Your task to perform on an android device: Go to Yahoo.com Image 0: 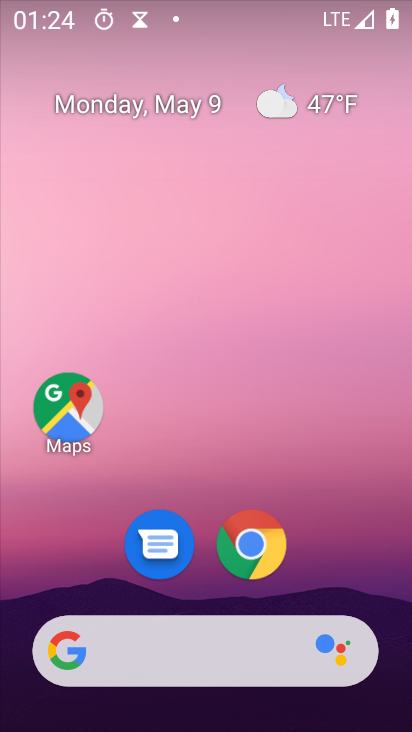
Step 0: drag from (381, 542) to (349, 2)
Your task to perform on an android device: Go to Yahoo.com Image 1: 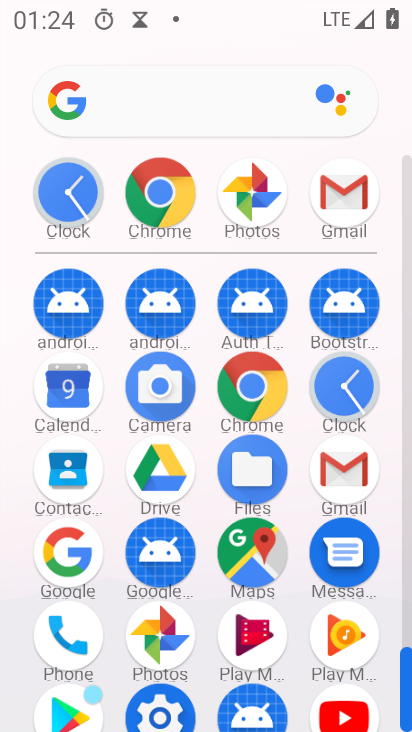
Step 1: click (168, 711)
Your task to perform on an android device: Go to Yahoo.com Image 2: 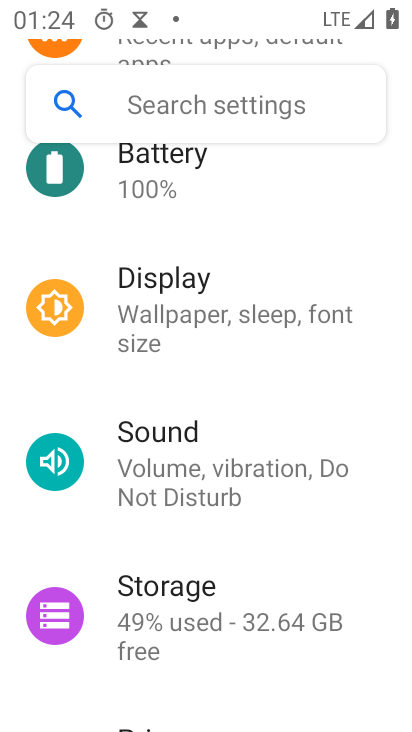
Step 2: press enter
Your task to perform on an android device: Go to Yahoo.com Image 3: 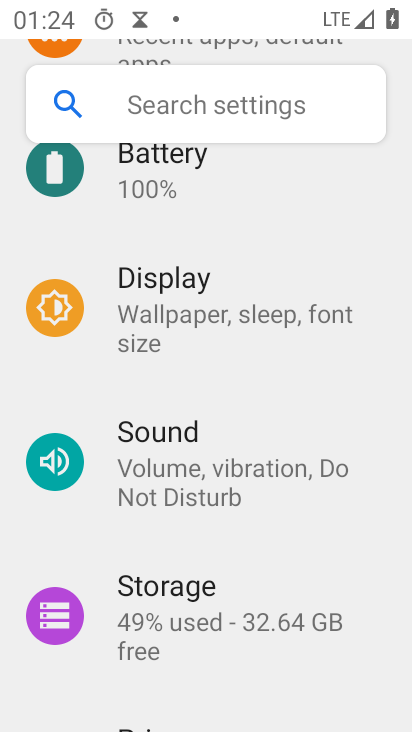
Step 3: press home button
Your task to perform on an android device: Go to Yahoo.com Image 4: 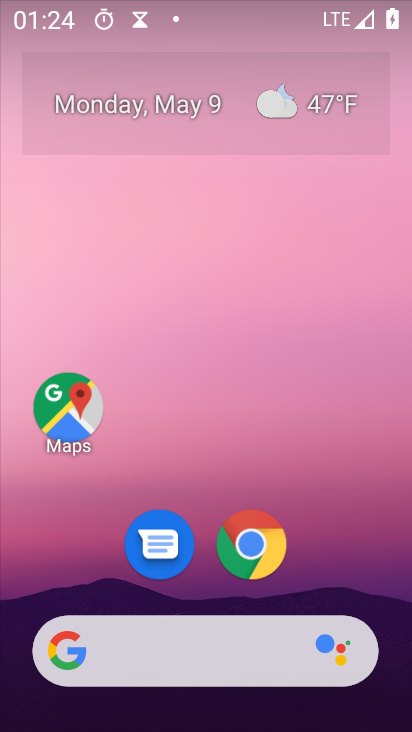
Step 4: drag from (316, 624) to (297, 9)
Your task to perform on an android device: Go to Yahoo.com Image 5: 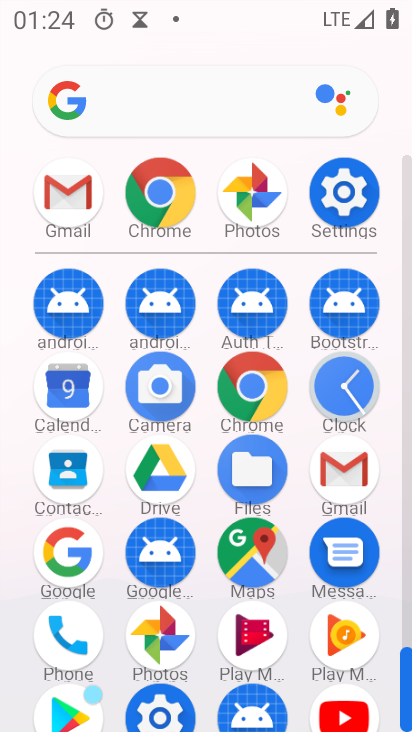
Step 5: click (265, 390)
Your task to perform on an android device: Go to Yahoo.com Image 6: 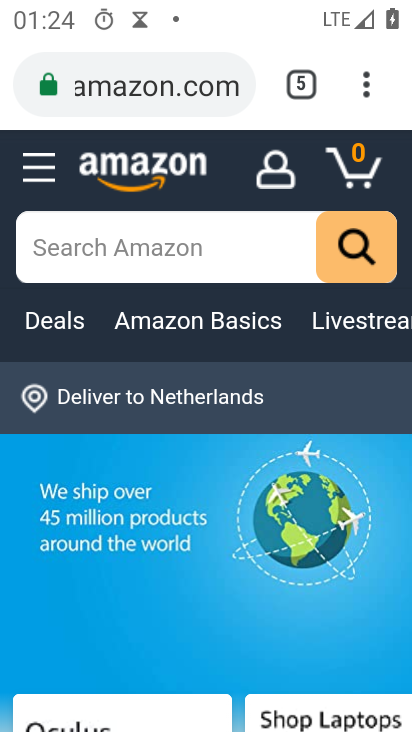
Step 6: click (356, 79)
Your task to perform on an android device: Go to Yahoo.com Image 7: 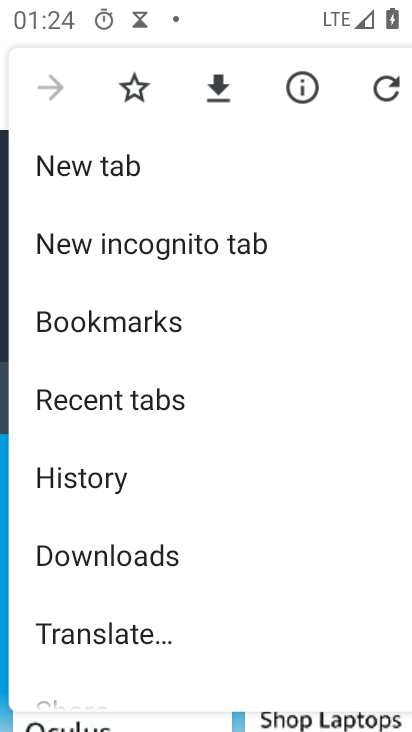
Step 7: drag from (204, 669) to (167, 728)
Your task to perform on an android device: Go to Yahoo.com Image 8: 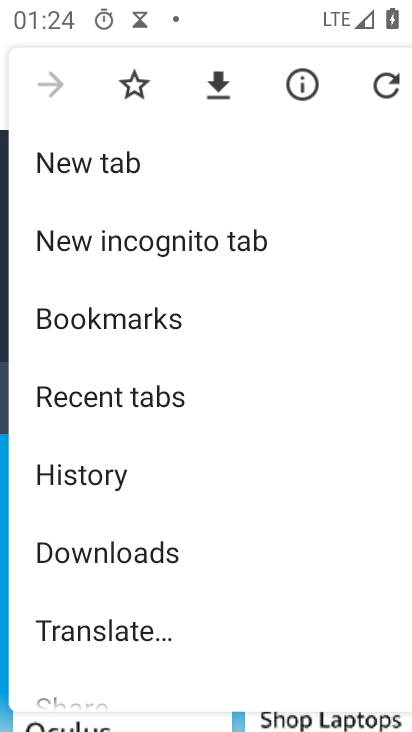
Step 8: click (115, 166)
Your task to perform on an android device: Go to Yahoo.com Image 9: 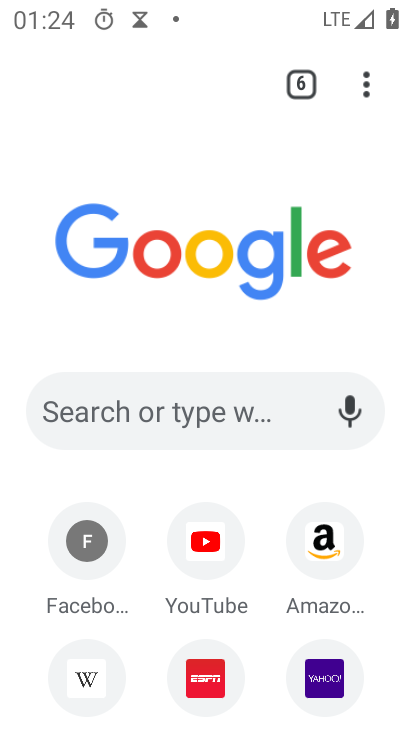
Step 9: click (328, 667)
Your task to perform on an android device: Go to Yahoo.com Image 10: 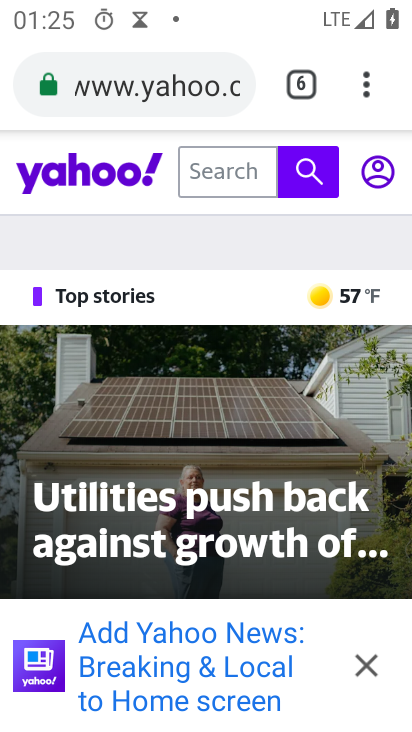
Step 10: task complete